Your task to perform on an android device: Go to sound settings Image 0: 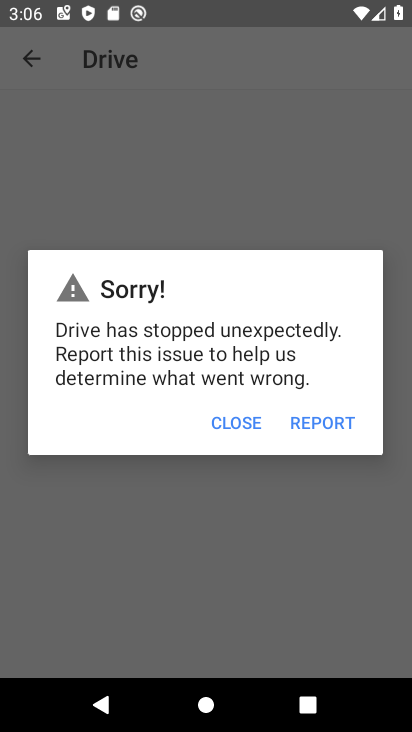
Step 0: press home button
Your task to perform on an android device: Go to sound settings Image 1: 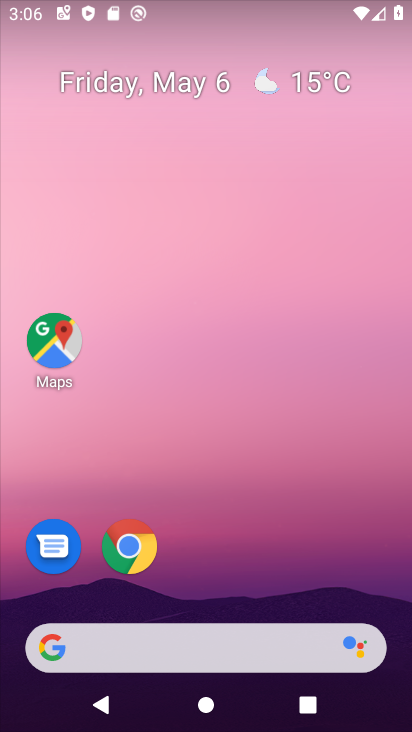
Step 1: drag from (318, 606) to (270, 214)
Your task to perform on an android device: Go to sound settings Image 2: 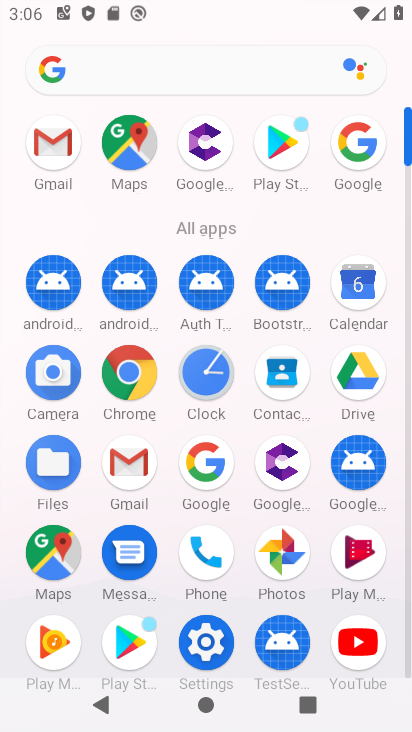
Step 2: click (215, 648)
Your task to perform on an android device: Go to sound settings Image 3: 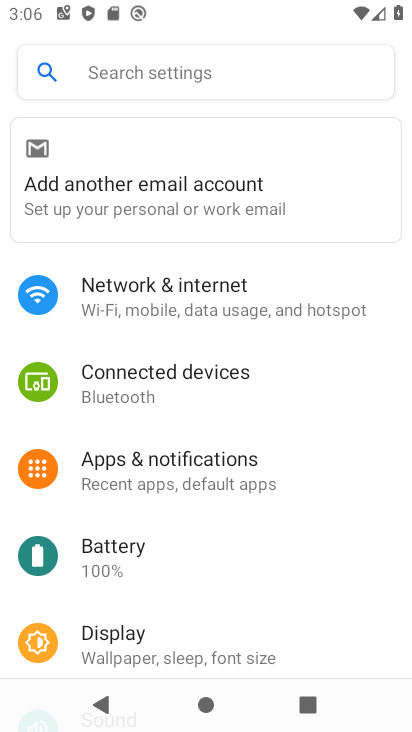
Step 3: drag from (272, 589) to (274, 323)
Your task to perform on an android device: Go to sound settings Image 4: 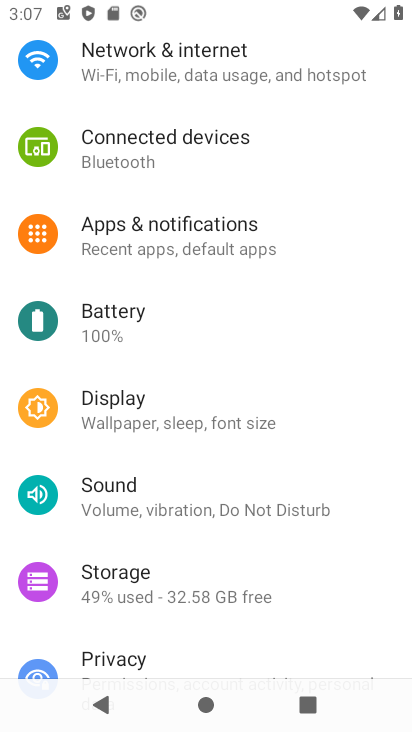
Step 4: click (263, 515)
Your task to perform on an android device: Go to sound settings Image 5: 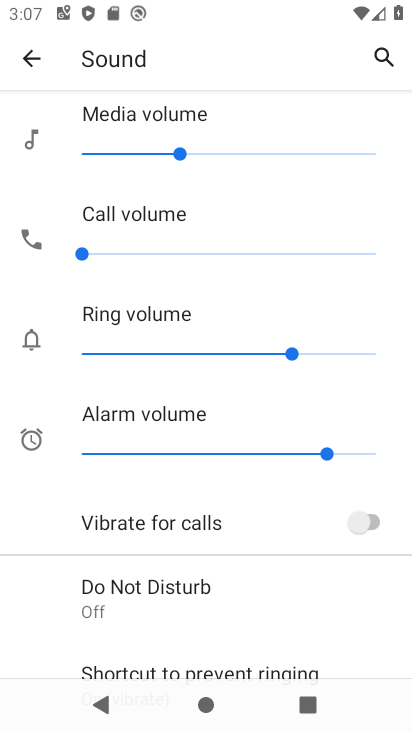
Step 5: task complete